Your task to perform on an android device: see creations saved in the google photos Image 0: 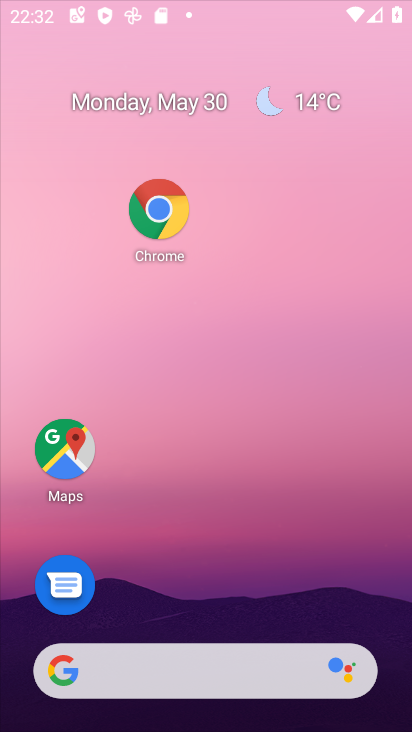
Step 0: drag from (294, 1) to (254, 13)
Your task to perform on an android device: see creations saved in the google photos Image 1: 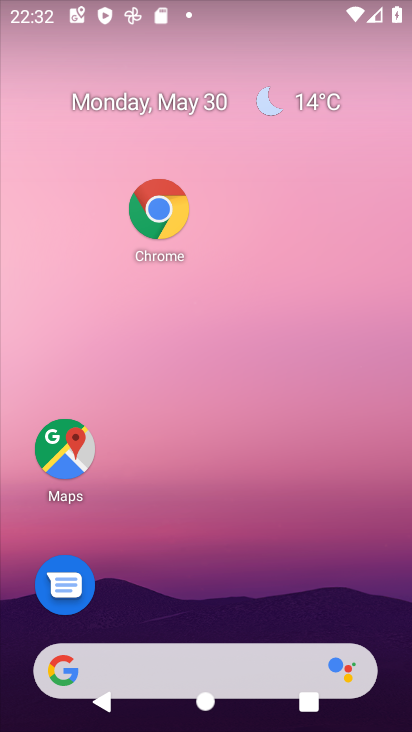
Step 1: drag from (220, 553) to (294, 2)
Your task to perform on an android device: see creations saved in the google photos Image 2: 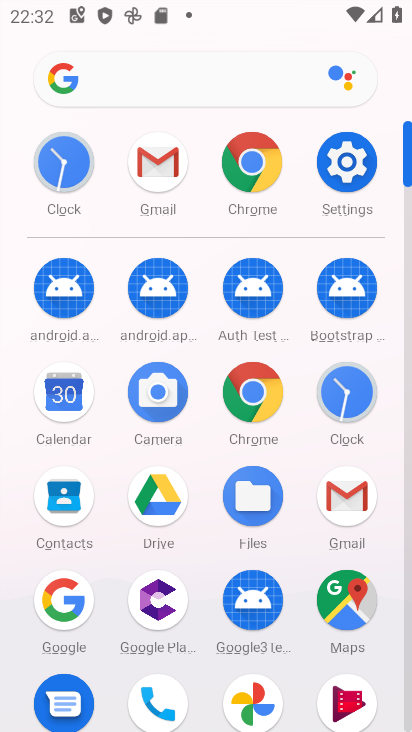
Step 2: click (165, 71)
Your task to perform on an android device: see creations saved in the google photos Image 3: 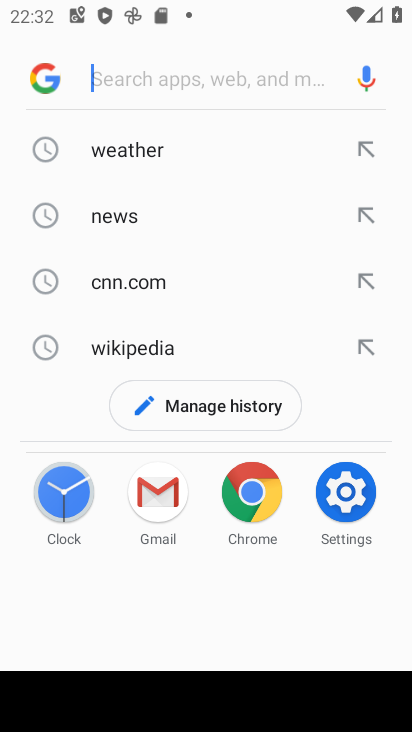
Step 3: press back button
Your task to perform on an android device: see creations saved in the google photos Image 4: 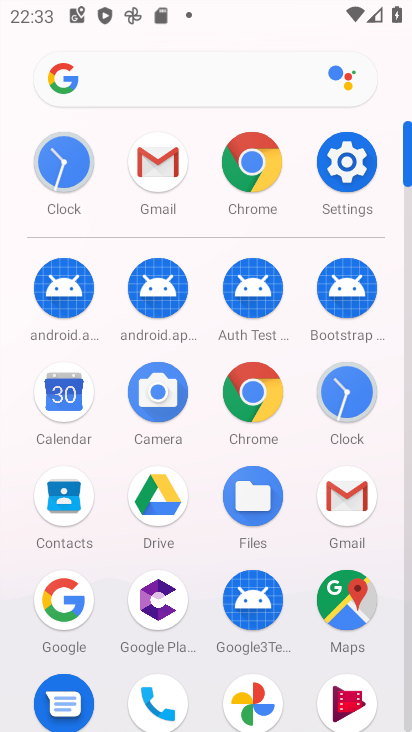
Step 4: click (245, 704)
Your task to perform on an android device: see creations saved in the google photos Image 5: 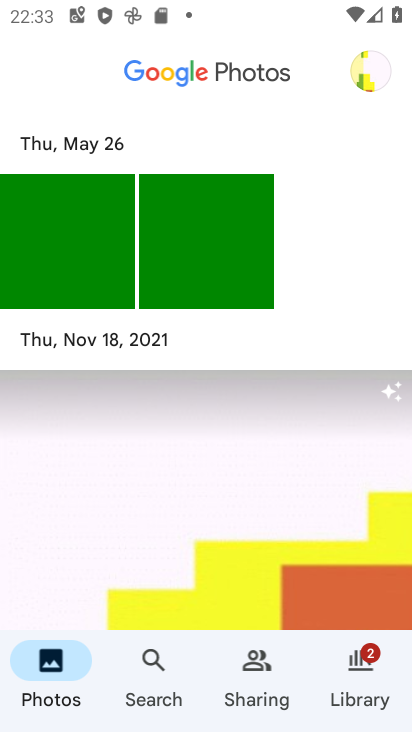
Step 5: drag from (320, 491) to (407, 45)
Your task to perform on an android device: see creations saved in the google photos Image 6: 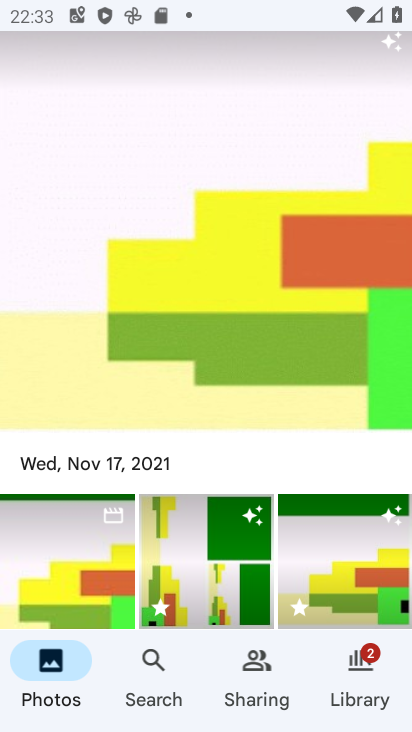
Step 6: drag from (283, 180) to (316, 720)
Your task to perform on an android device: see creations saved in the google photos Image 7: 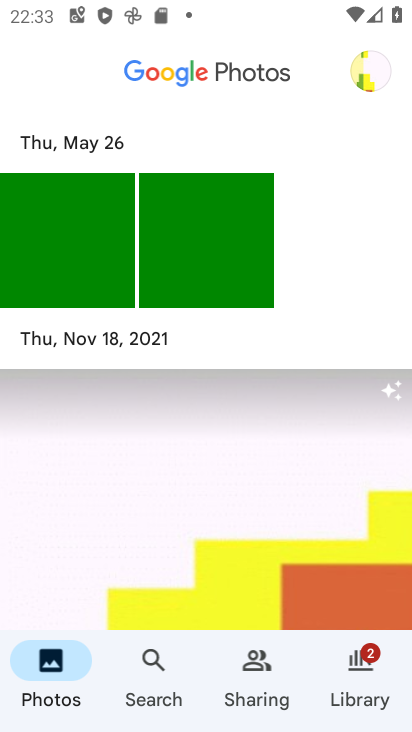
Step 7: drag from (302, 266) to (336, 38)
Your task to perform on an android device: see creations saved in the google photos Image 8: 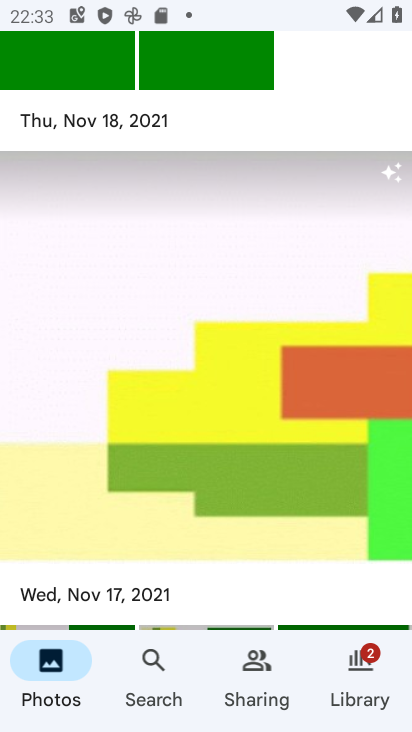
Step 8: click (153, 678)
Your task to perform on an android device: see creations saved in the google photos Image 9: 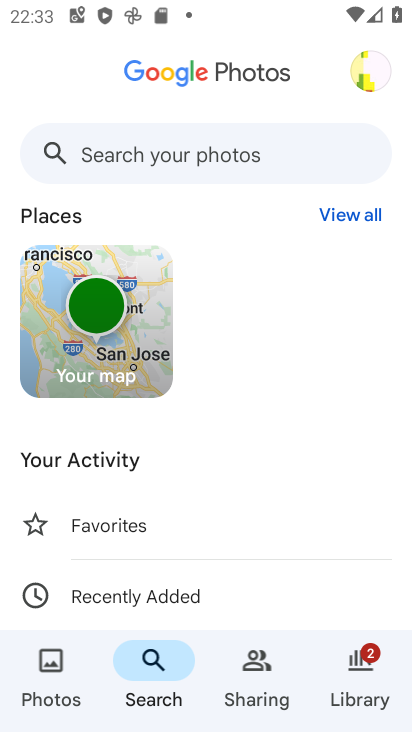
Step 9: drag from (218, 575) to (283, 255)
Your task to perform on an android device: see creations saved in the google photos Image 10: 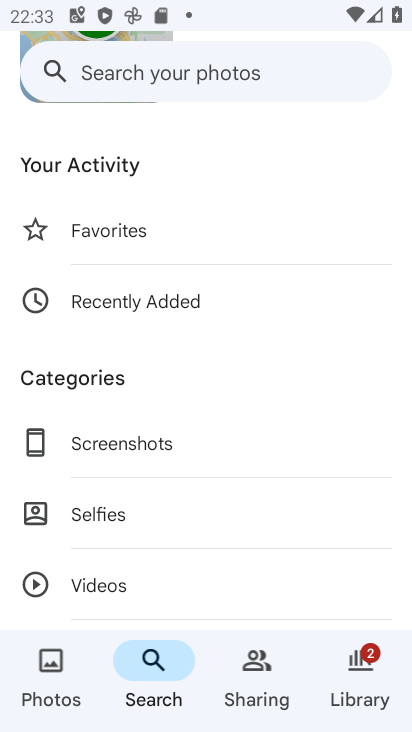
Step 10: drag from (275, 500) to (326, 94)
Your task to perform on an android device: see creations saved in the google photos Image 11: 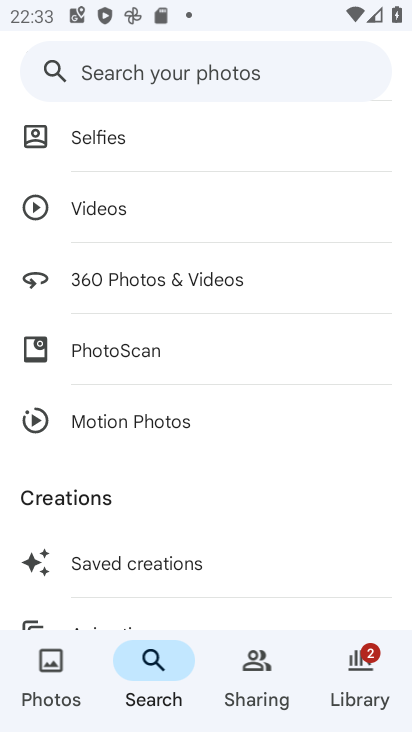
Step 11: drag from (247, 482) to (287, 105)
Your task to perform on an android device: see creations saved in the google photos Image 12: 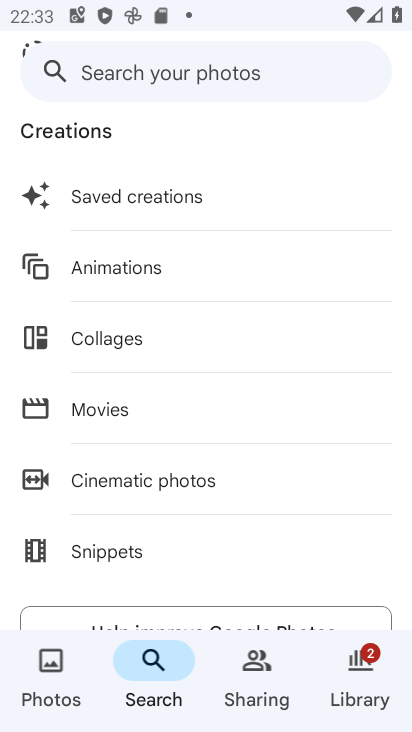
Step 12: drag from (214, 187) to (245, 728)
Your task to perform on an android device: see creations saved in the google photos Image 13: 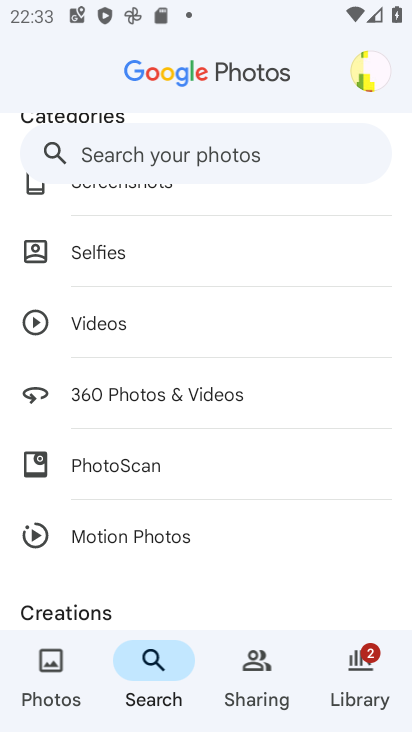
Step 13: drag from (194, 540) to (286, 130)
Your task to perform on an android device: see creations saved in the google photos Image 14: 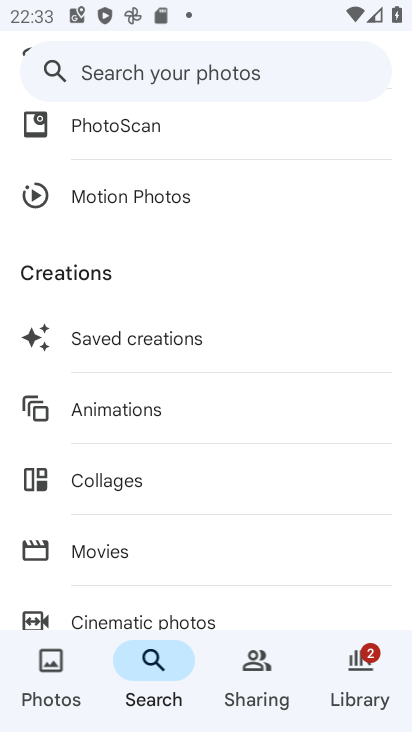
Step 14: click (180, 347)
Your task to perform on an android device: see creations saved in the google photos Image 15: 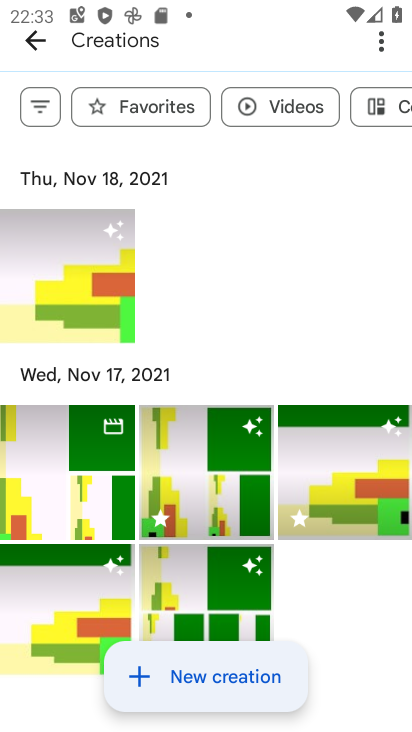
Step 15: drag from (241, 504) to (295, 155)
Your task to perform on an android device: see creations saved in the google photos Image 16: 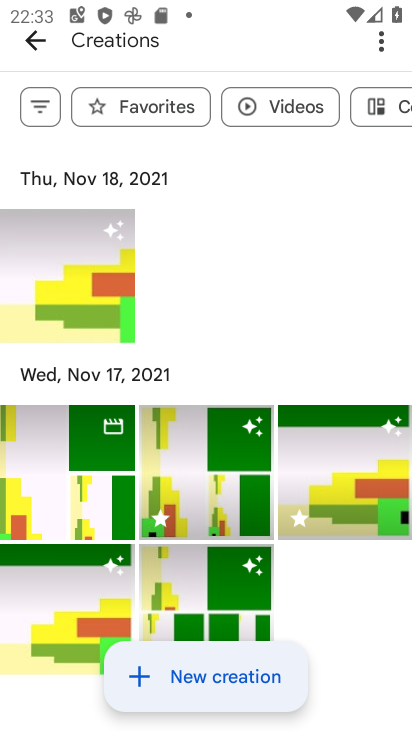
Step 16: drag from (304, 365) to (329, 240)
Your task to perform on an android device: see creations saved in the google photos Image 17: 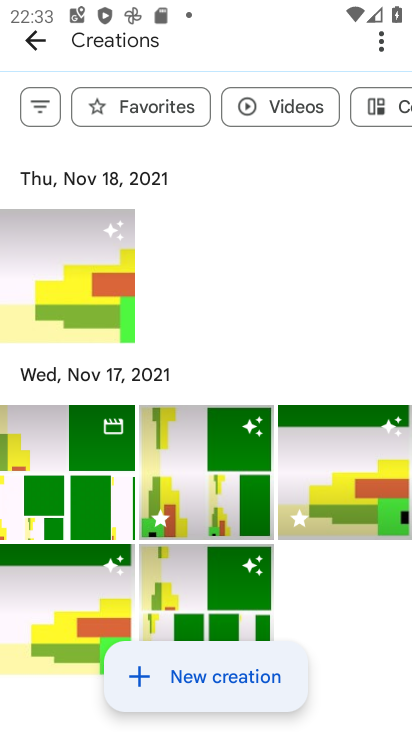
Step 17: drag from (276, 550) to (351, 181)
Your task to perform on an android device: see creations saved in the google photos Image 18: 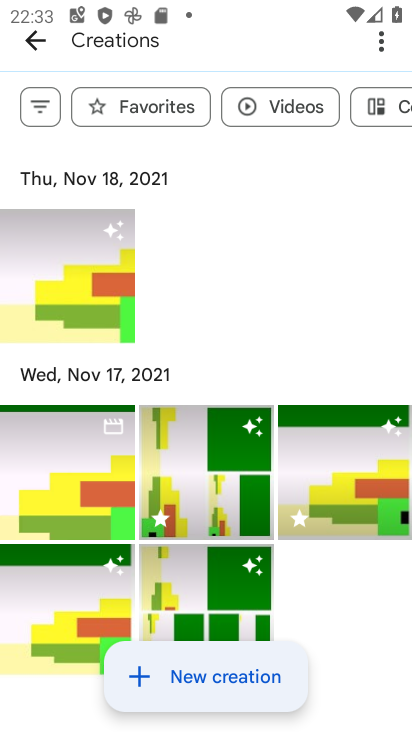
Step 18: drag from (283, 565) to (371, 168)
Your task to perform on an android device: see creations saved in the google photos Image 19: 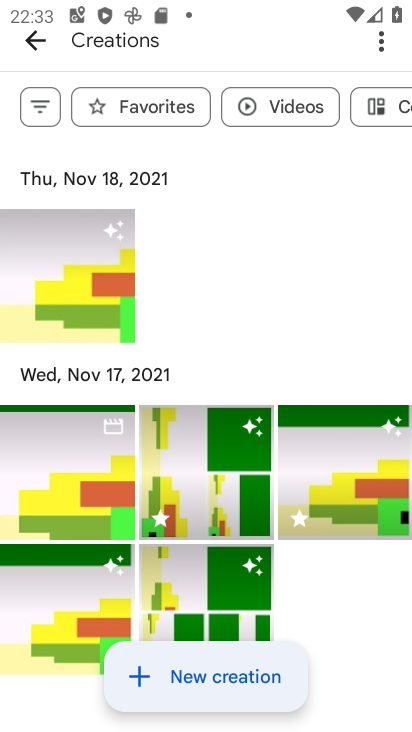
Step 19: click (108, 475)
Your task to perform on an android device: see creations saved in the google photos Image 20: 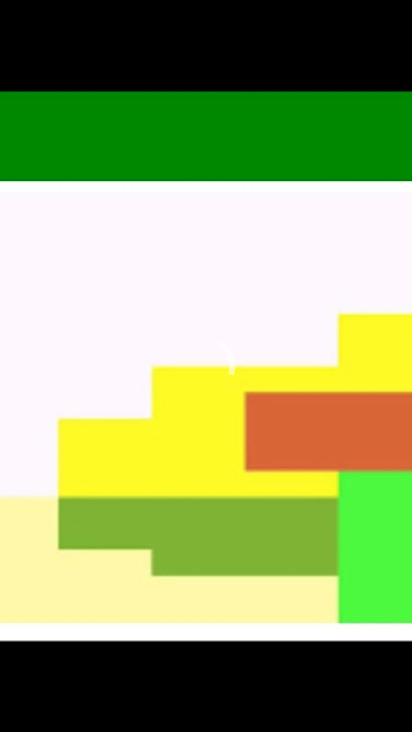
Step 20: drag from (329, 442) to (0, 459)
Your task to perform on an android device: see creations saved in the google photos Image 21: 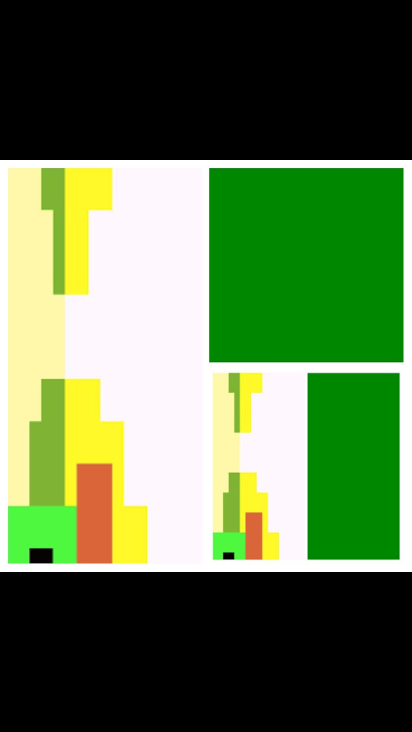
Step 21: drag from (354, 441) to (4, 502)
Your task to perform on an android device: see creations saved in the google photos Image 22: 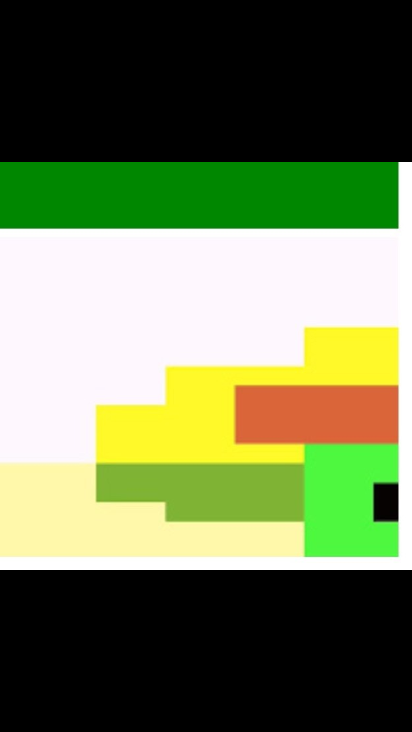
Step 22: press back button
Your task to perform on an android device: see creations saved in the google photos Image 23: 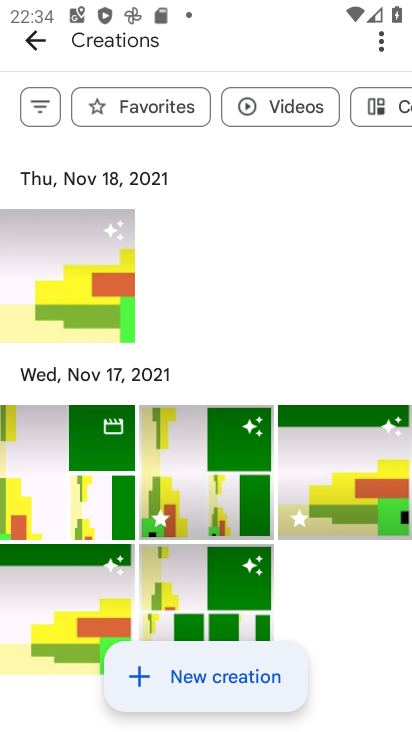
Step 23: click (328, 479)
Your task to perform on an android device: see creations saved in the google photos Image 24: 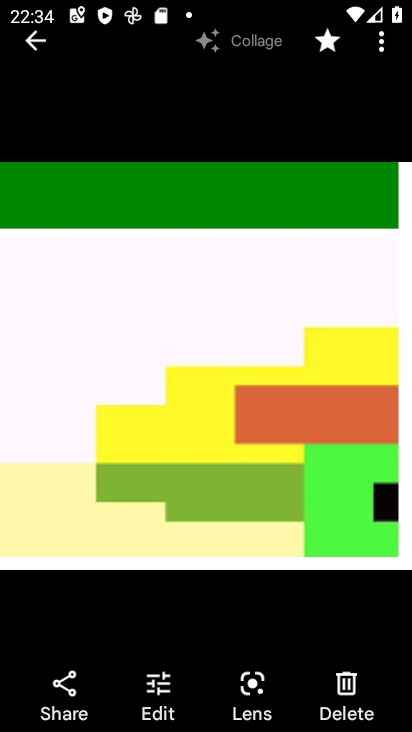
Step 24: task complete